Your task to perform on an android device: turn on sleep mode Image 0: 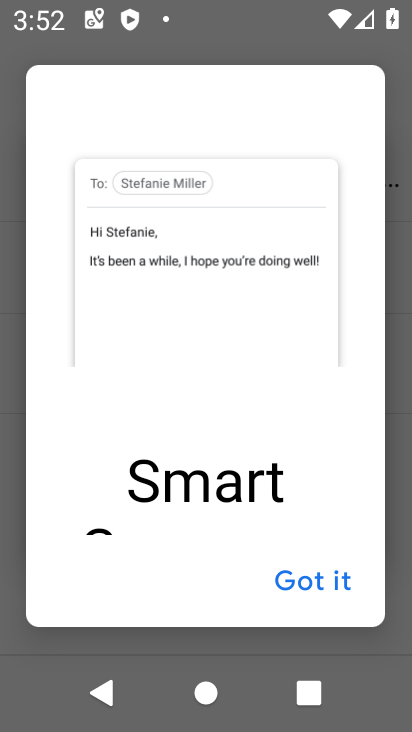
Step 0: press home button
Your task to perform on an android device: turn on sleep mode Image 1: 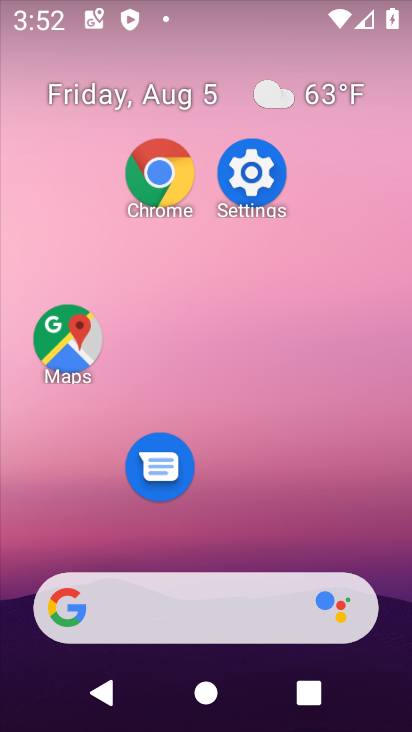
Step 1: drag from (285, 539) to (284, 56)
Your task to perform on an android device: turn on sleep mode Image 2: 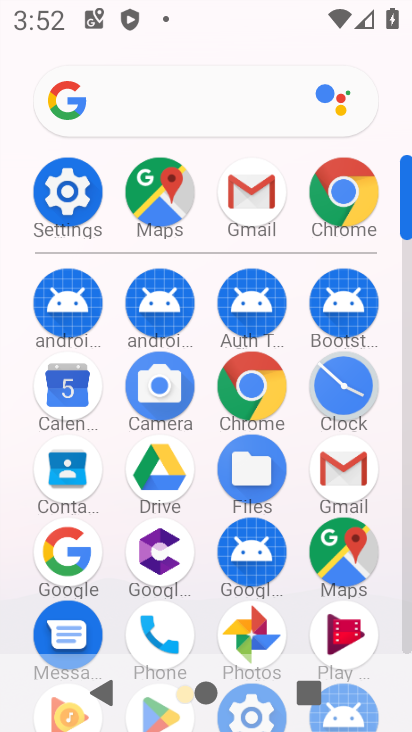
Step 2: click (69, 182)
Your task to perform on an android device: turn on sleep mode Image 3: 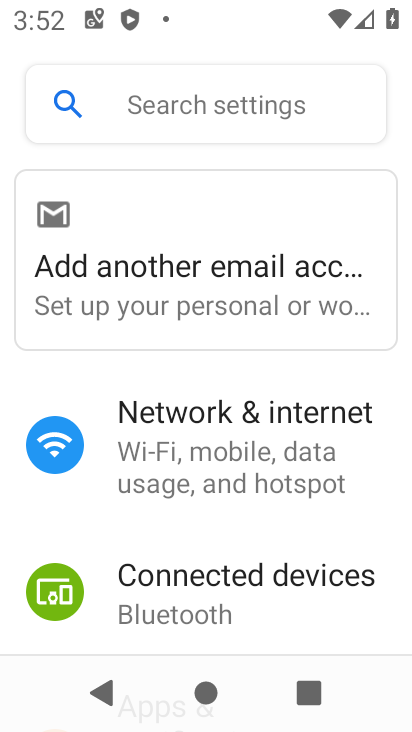
Step 3: drag from (172, 552) to (176, 204)
Your task to perform on an android device: turn on sleep mode Image 4: 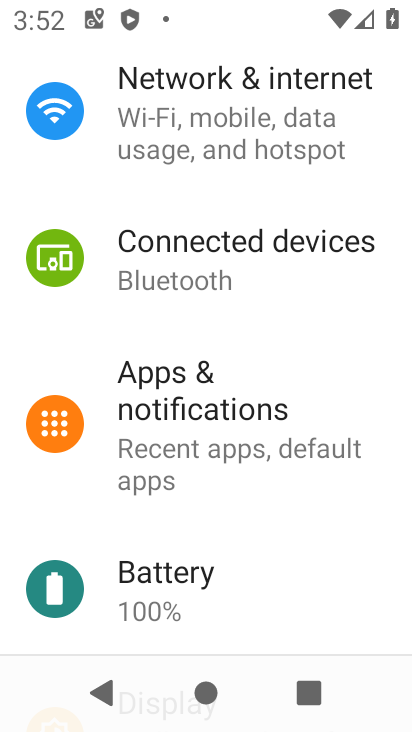
Step 4: drag from (204, 551) to (208, 234)
Your task to perform on an android device: turn on sleep mode Image 5: 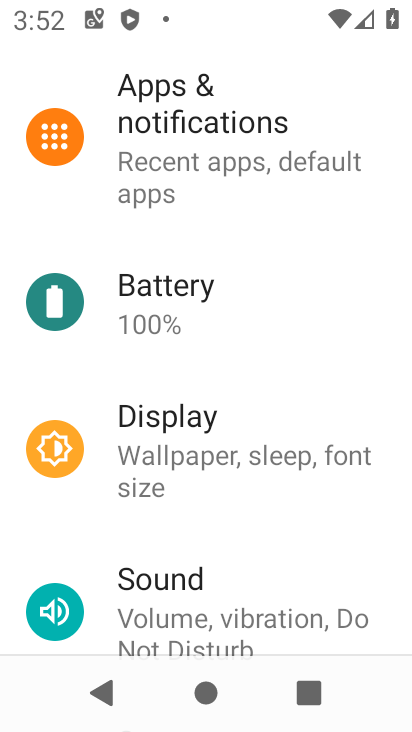
Step 5: drag from (243, 541) to (241, 239)
Your task to perform on an android device: turn on sleep mode Image 6: 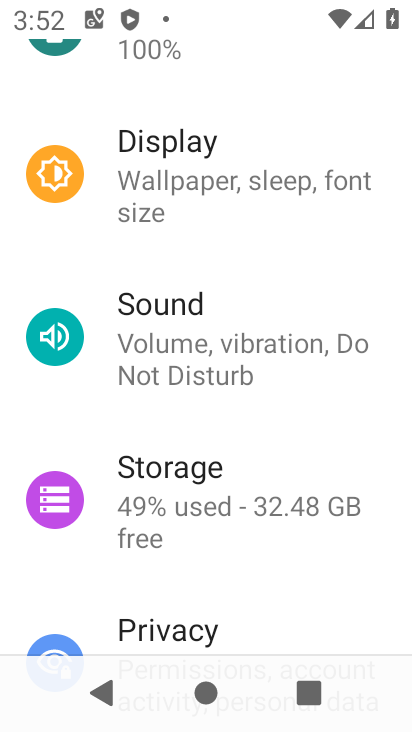
Step 6: drag from (212, 482) to (208, 637)
Your task to perform on an android device: turn on sleep mode Image 7: 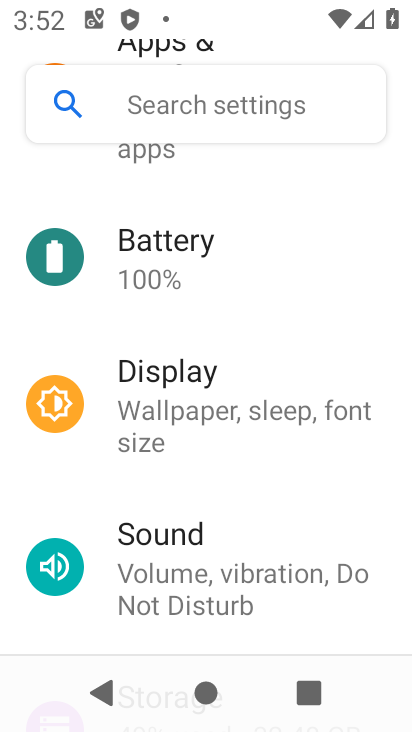
Step 7: click (176, 397)
Your task to perform on an android device: turn on sleep mode Image 8: 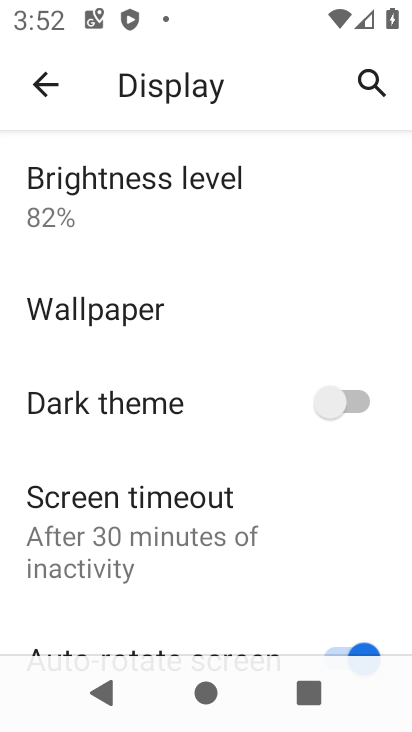
Step 8: task complete